Your task to perform on an android device: When is my next appointment? Image 0: 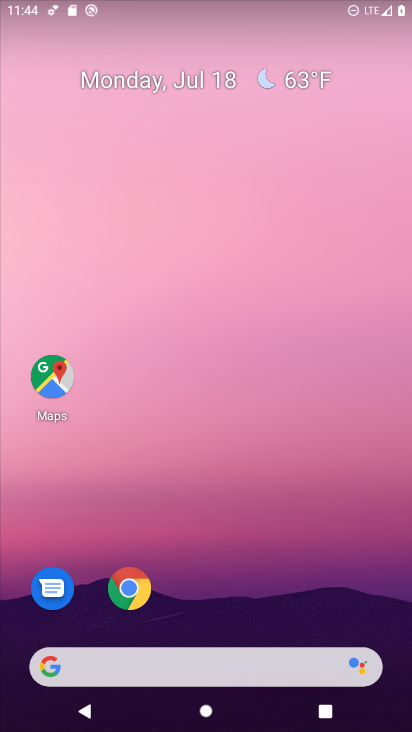
Step 0: drag from (255, 645) to (219, 87)
Your task to perform on an android device: When is my next appointment? Image 1: 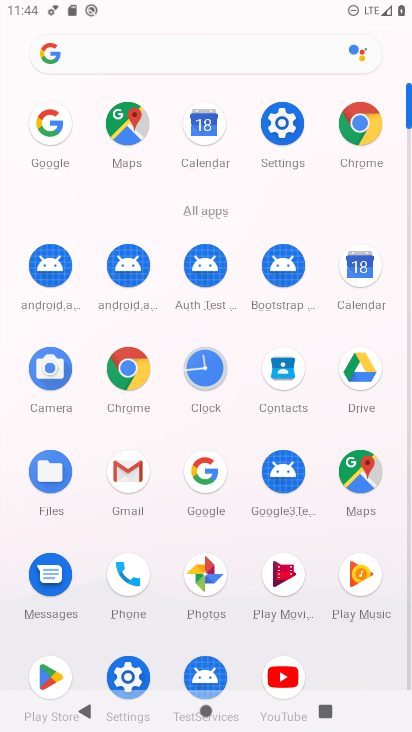
Step 1: click (197, 127)
Your task to perform on an android device: When is my next appointment? Image 2: 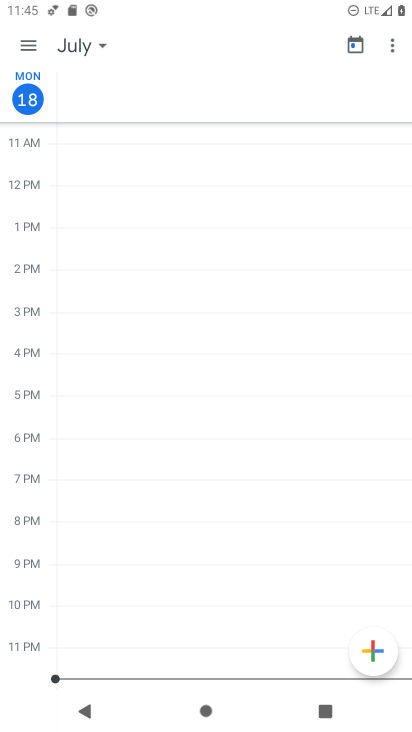
Step 2: click (98, 46)
Your task to perform on an android device: When is my next appointment? Image 3: 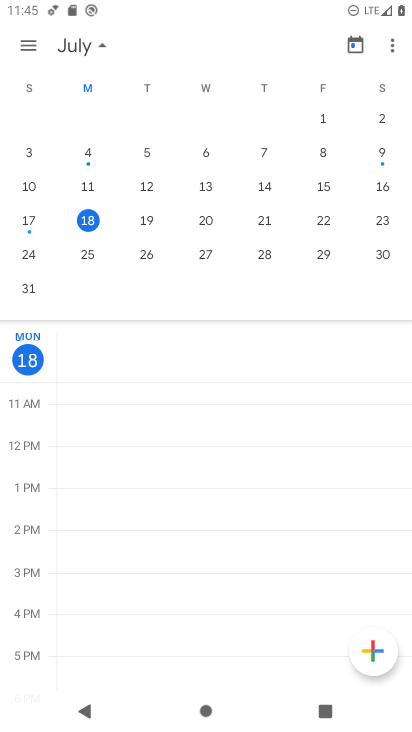
Step 3: click (34, 43)
Your task to perform on an android device: When is my next appointment? Image 4: 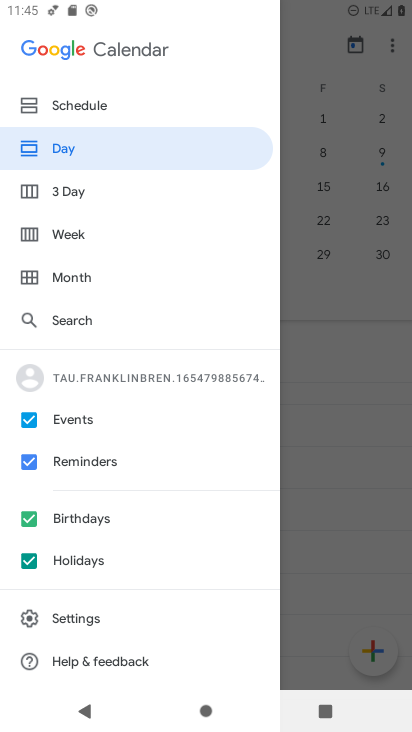
Step 4: click (60, 103)
Your task to perform on an android device: When is my next appointment? Image 5: 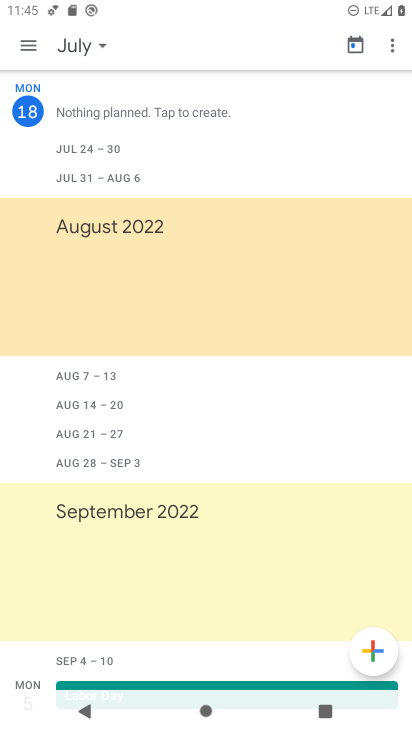
Step 5: task complete